Your task to perform on an android device: Clear all items from cart on costco.com. Image 0: 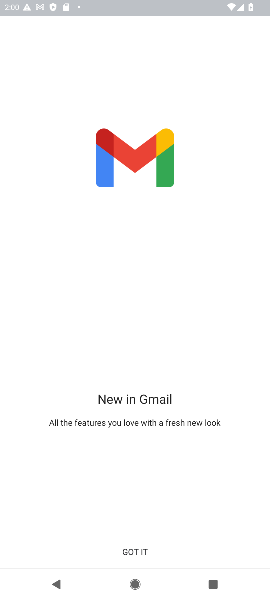
Step 0: press home button
Your task to perform on an android device: Clear all items from cart on costco.com. Image 1: 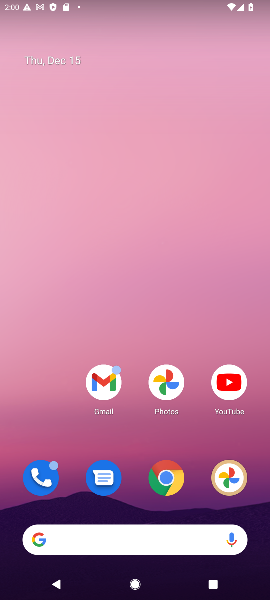
Step 1: click (169, 483)
Your task to perform on an android device: Clear all items from cart on costco.com. Image 2: 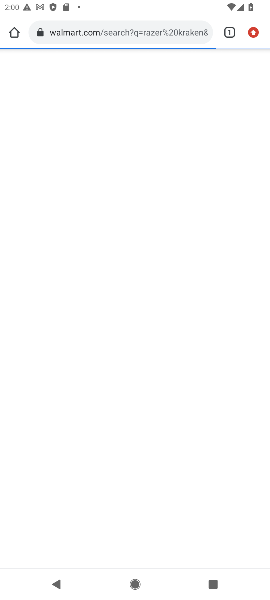
Step 2: click (104, 31)
Your task to perform on an android device: Clear all items from cart on costco.com. Image 3: 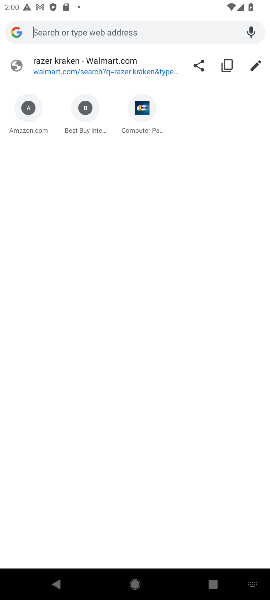
Step 3: type "costco.com"
Your task to perform on an android device: Clear all items from cart on costco.com. Image 4: 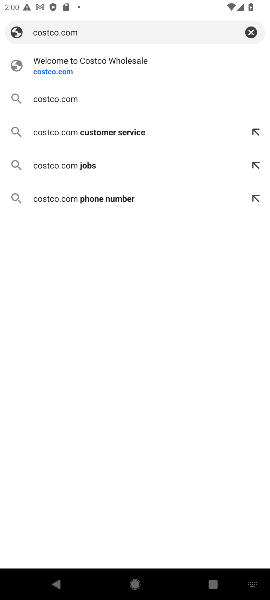
Step 4: click (52, 74)
Your task to perform on an android device: Clear all items from cart on costco.com. Image 5: 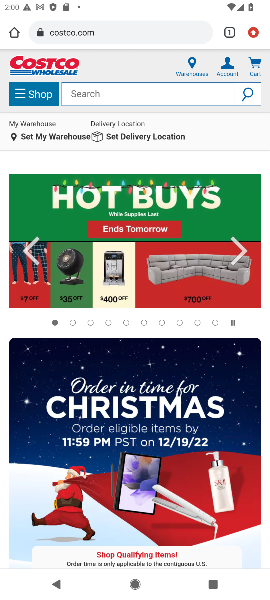
Step 5: click (259, 67)
Your task to perform on an android device: Clear all items from cart on costco.com. Image 6: 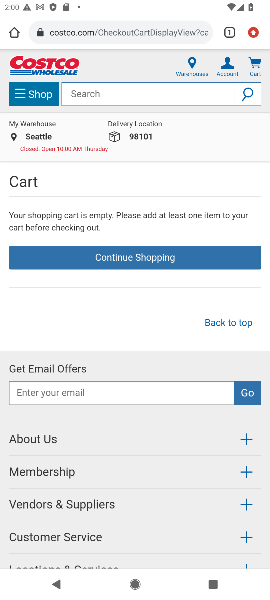
Step 6: task complete